Your task to perform on an android device: Open settings Image 0: 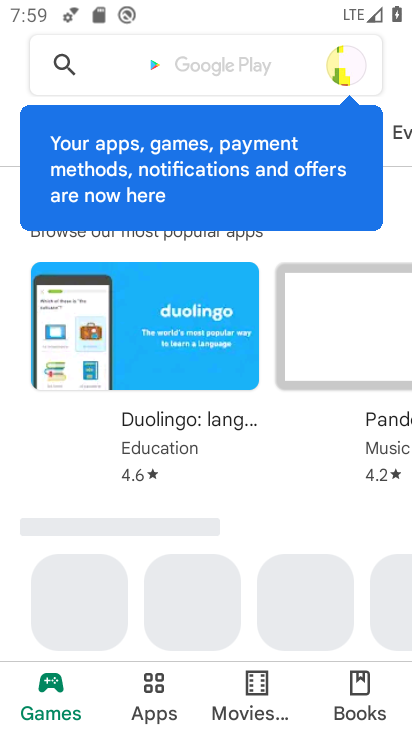
Step 0: press home button
Your task to perform on an android device: Open settings Image 1: 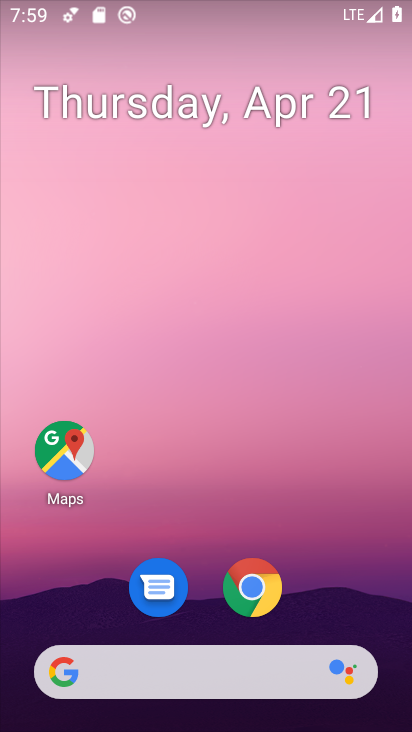
Step 1: drag from (373, 187) to (367, 140)
Your task to perform on an android device: Open settings Image 2: 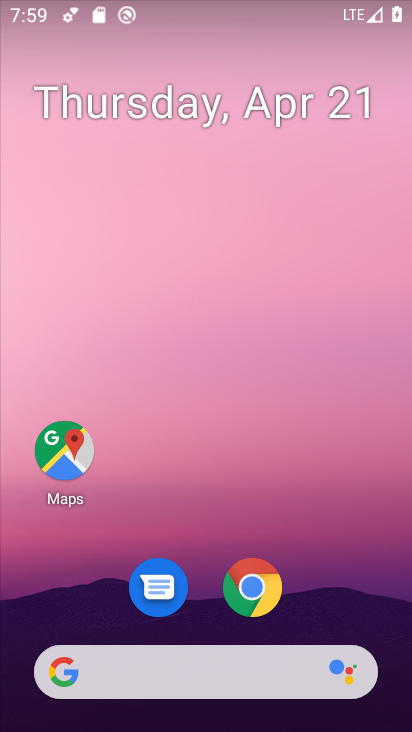
Step 2: drag from (358, 225) to (342, 159)
Your task to perform on an android device: Open settings Image 3: 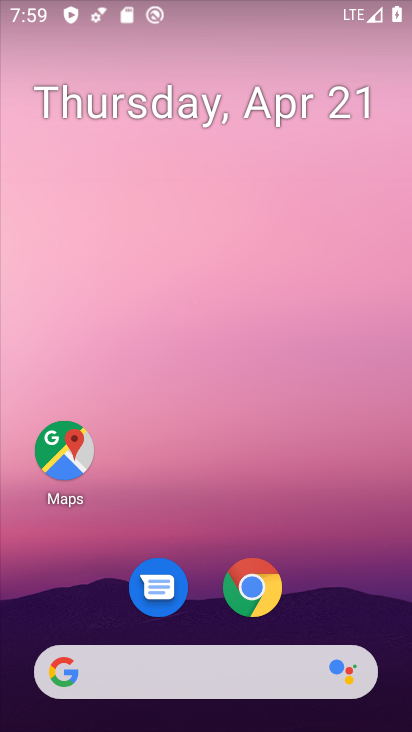
Step 3: drag from (380, 531) to (353, 144)
Your task to perform on an android device: Open settings Image 4: 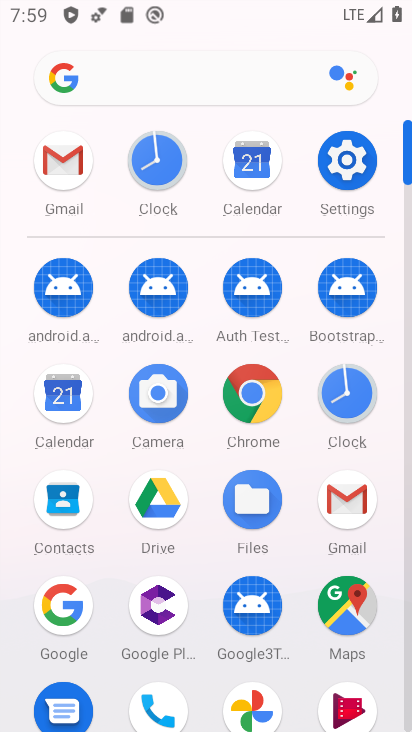
Step 4: click (340, 164)
Your task to perform on an android device: Open settings Image 5: 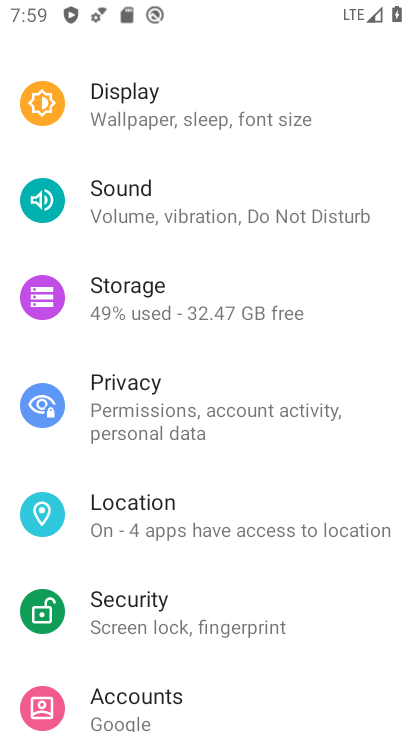
Step 5: task complete